Your task to perform on an android device: open chrome privacy settings Image 0: 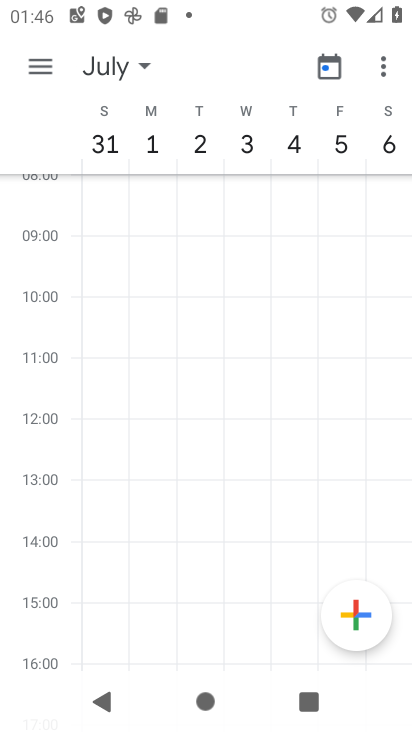
Step 0: press home button
Your task to perform on an android device: open chrome privacy settings Image 1: 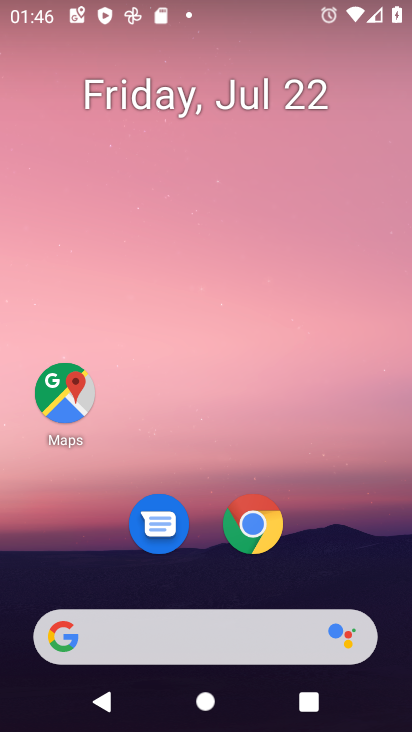
Step 1: click (263, 522)
Your task to perform on an android device: open chrome privacy settings Image 2: 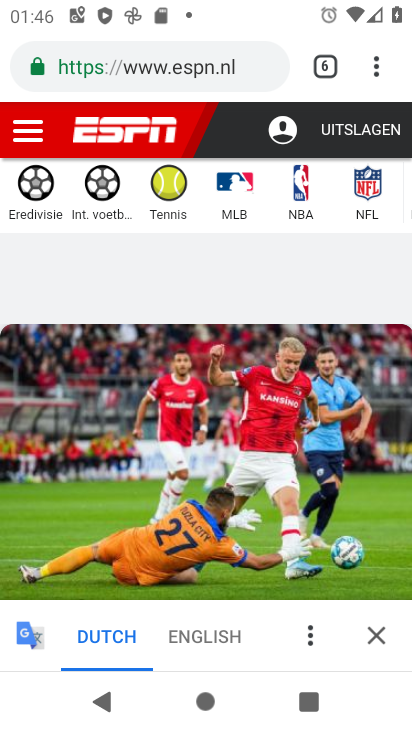
Step 2: drag from (376, 76) to (183, 525)
Your task to perform on an android device: open chrome privacy settings Image 3: 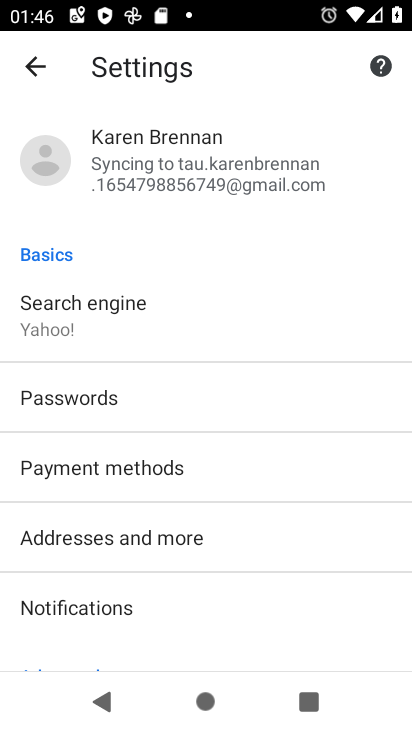
Step 3: drag from (205, 580) to (324, 140)
Your task to perform on an android device: open chrome privacy settings Image 4: 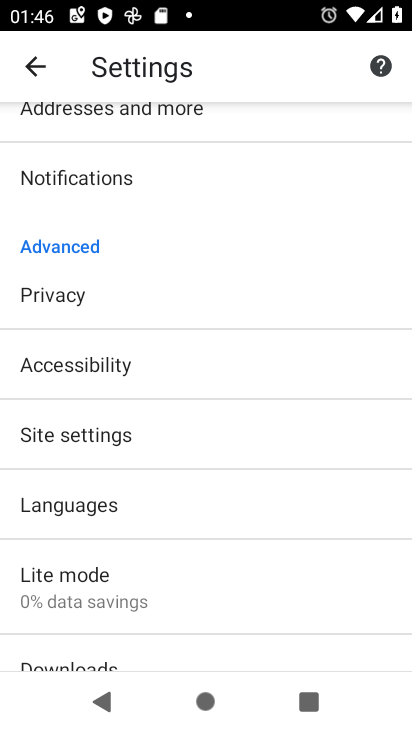
Step 4: click (90, 309)
Your task to perform on an android device: open chrome privacy settings Image 5: 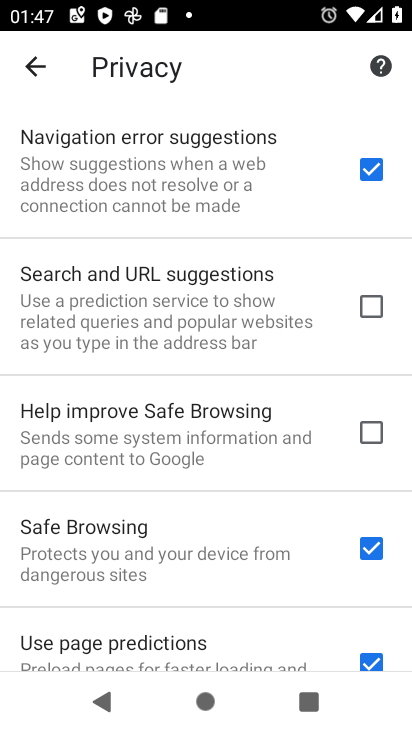
Step 5: task complete